Your task to perform on an android device: turn pop-ups off in chrome Image 0: 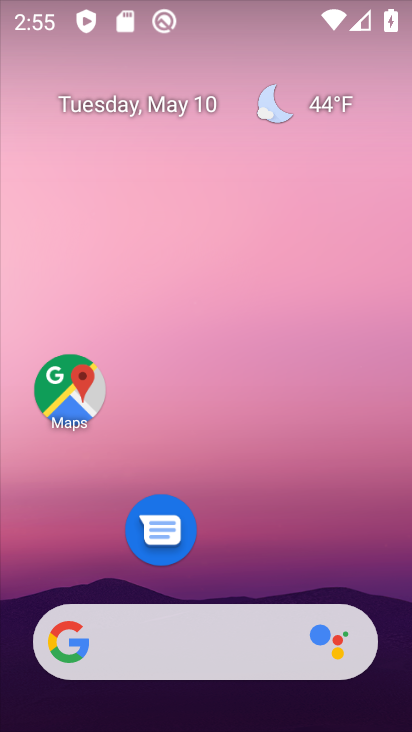
Step 0: drag from (249, 258) to (250, 38)
Your task to perform on an android device: turn pop-ups off in chrome Image 1: 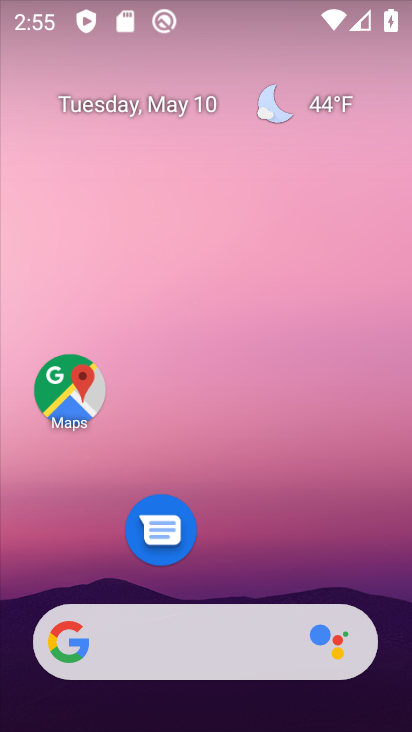
Step 1: drag from (253, 572) to (208, 16)
Your task to perform on an android device: turn pop-ups off in chrome Image 2: 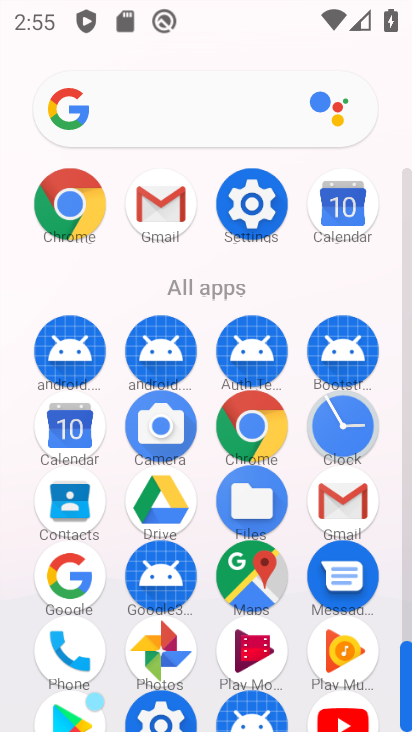
Step 2: click (254, 424)
Your task to perform on an android device: turn pop-ups off in chrome Image 3: 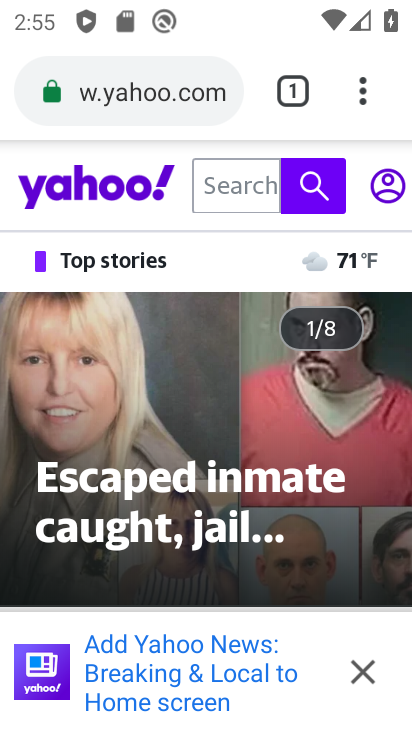
Step 3: click (349, 87)
Your task to perform on an android device: turn pop-ups off in chrome Image 4: 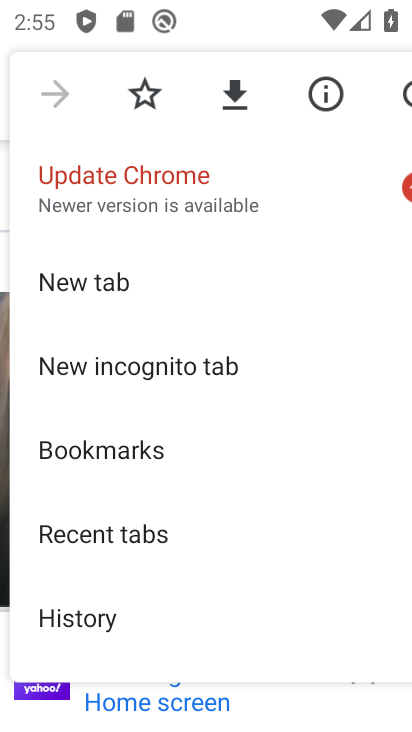
Step 4: drag from (259, 538) to (233, 63)
Your task to perform on an android device: turn pop-ups off in chrome Image 5: 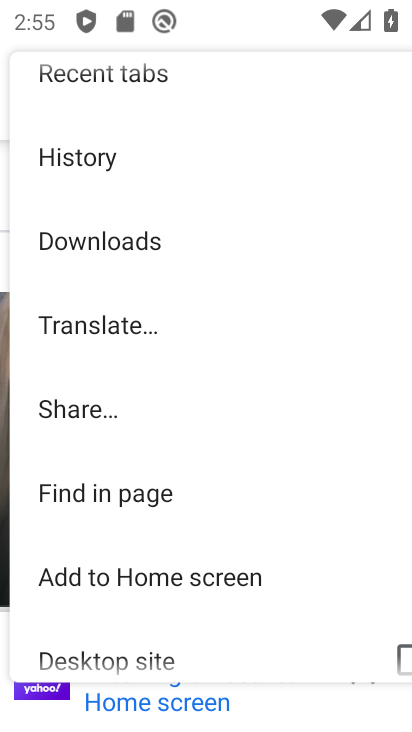
Step 5: drag from (178, 634) to (168, 107)
Your task to perform on an android device: turn pop-ups off in chrome Image 6: 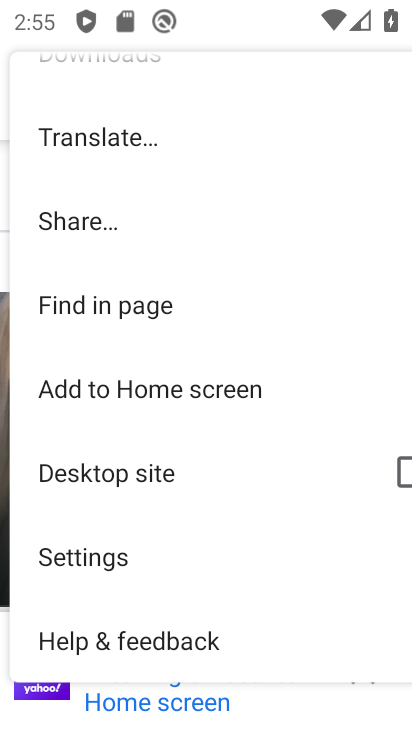
Step 6: click (118, 568)
Your task to perform on an android device: turn pop-ups off in chrome Image 7: 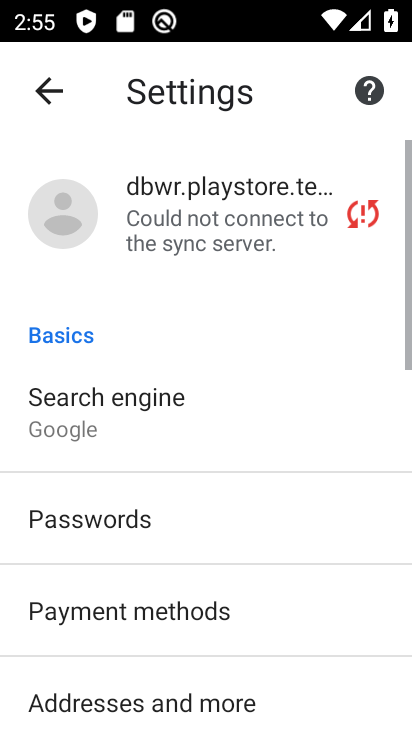
Step 7: drag from (236, 633) to (230, 7)
Your task to perform on an android device: turn pop-ups off in chrome Image 8: 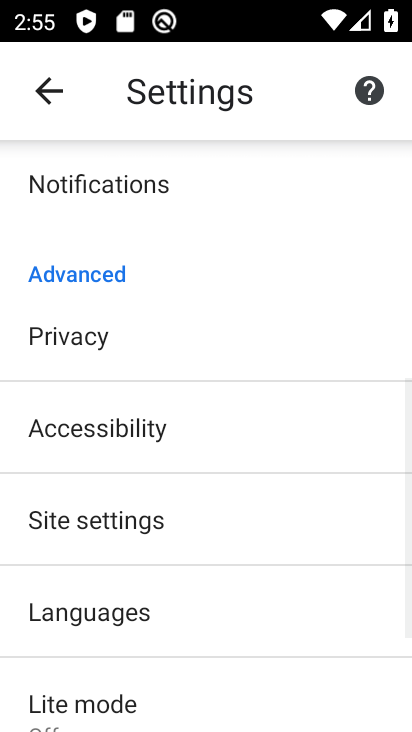
Step 8: click (114, 516)
Your task to perform on an android device: turn pop-ups off in chrome Image 9: 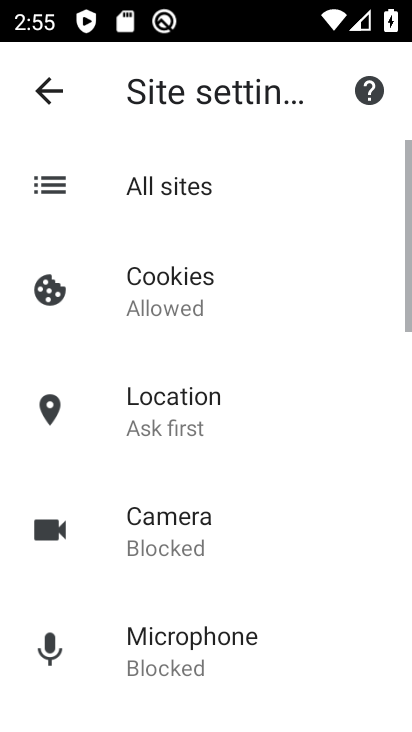
Step 9: drag from (226, 558) to (282, 3)
Your task to perform on an android device: turn pop-ups off in chrome Image 10: 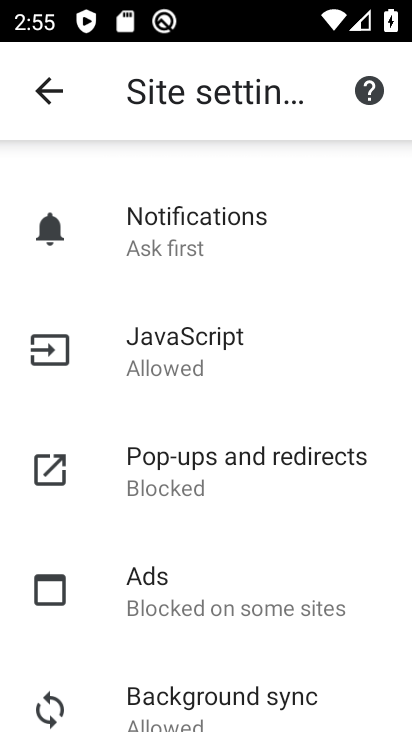
Step 10: click (210, 482)
Your task to perform on an android device: turn pop-ups off in chrome Image 11: 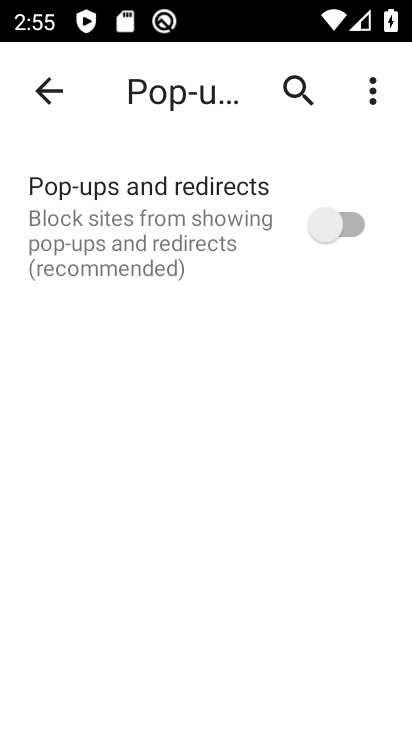
Step 11: task complete